Your task to perform on an android device: Open notification settings Image 0: 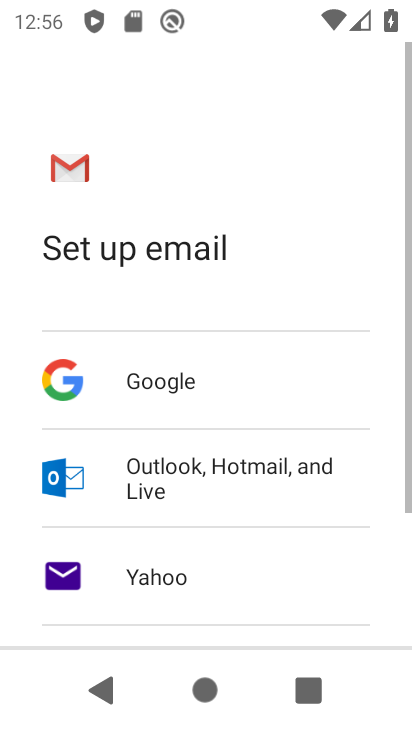
Step 0: press home button
Your task to perform on an android device: Open notification settings Image 1: 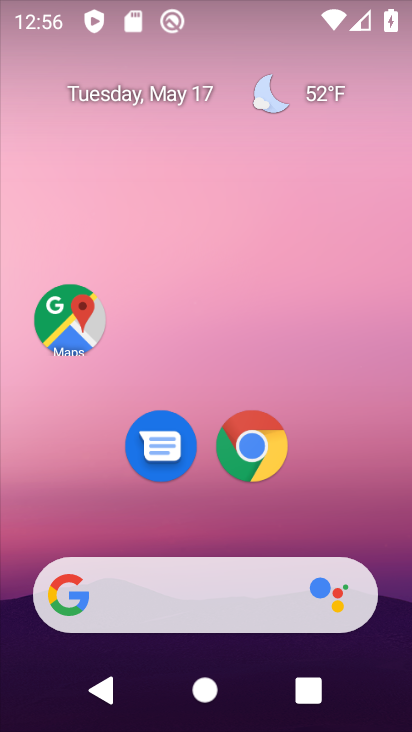
Step 1: drag from (325, 485) to (268, 124)
Your task to perform on an android device: Open notification settings Image 2: 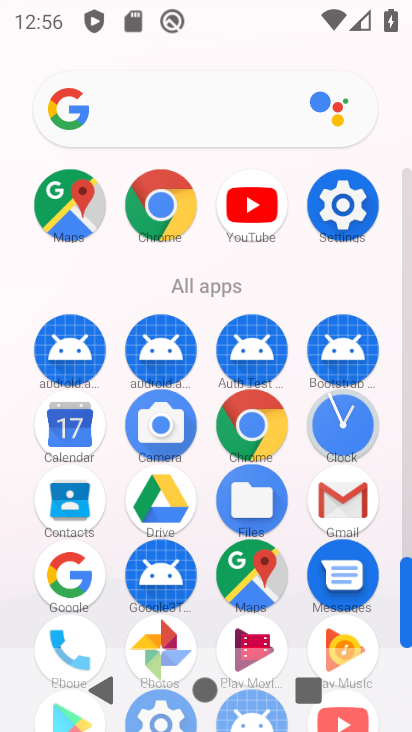
Step 2: click (327, 214)
Your task to perform on an android device: Open notification settings Image 3: 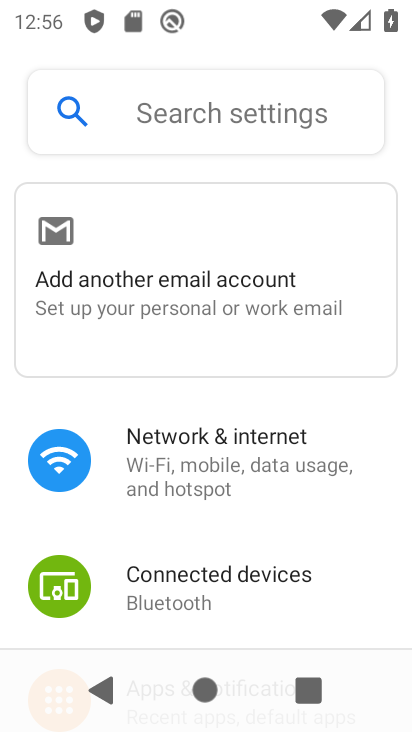
Step 3: drag from (266, 627) to (226, 320)
Your task to perform on an android device: Open notification settings Image 4: 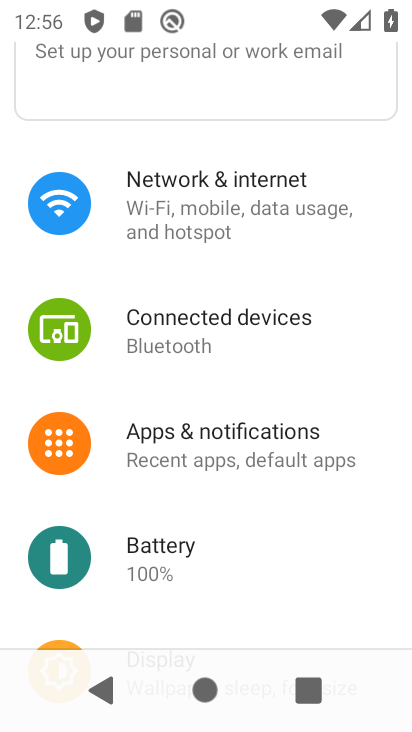
Step 4: click (198, 451)
Your task to perform on an android device: Open notification settings Image 5: 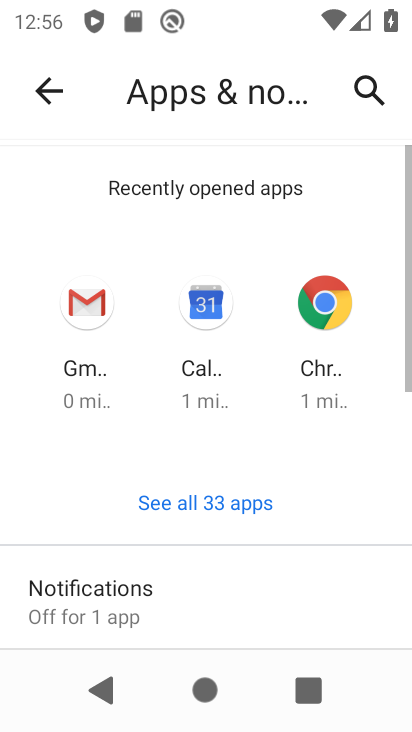
Step 5: click (168, 589)
Your task to perform on an android device: Open notification settings Image 6: 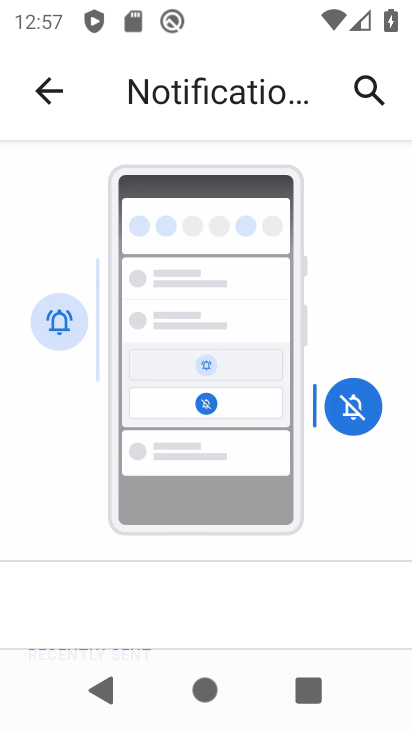
Step 6: task complete